Your task to perform on an android device: set the timer Image 0: 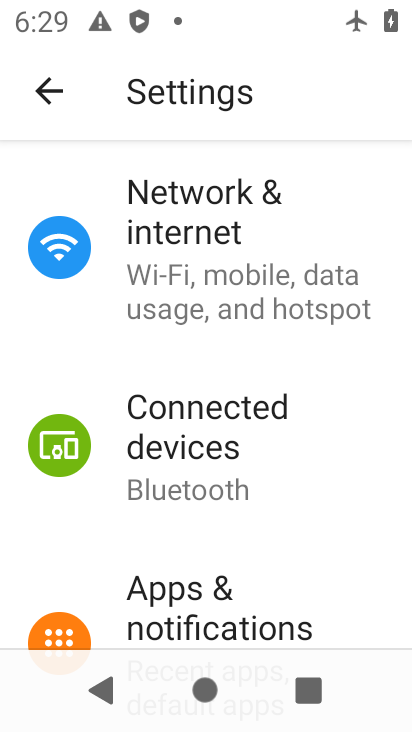
Step 0: drag from (202, 586) to (193, 313)
Your task to perform on an android device: set the timer Image 1: 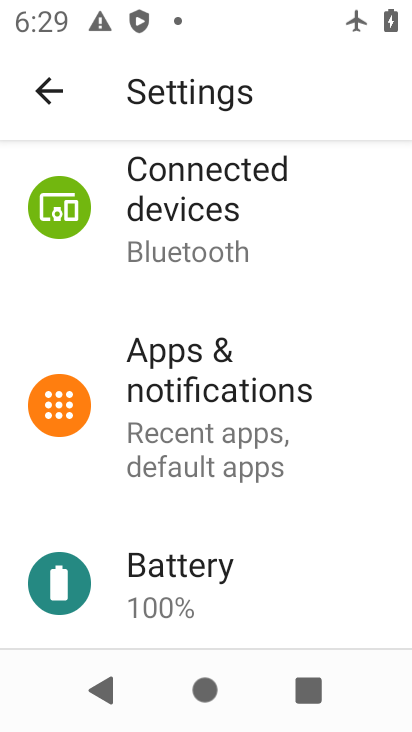
Step 1: press home button
Your task to perform on an android device: set the timer Image 2: 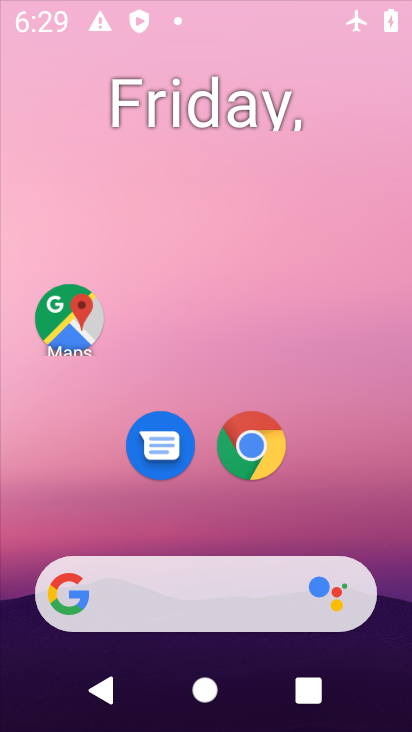
Step 2: drag from (200, 588) to (269, 143)
Your task to perform on an android device: set the timer Image 3: 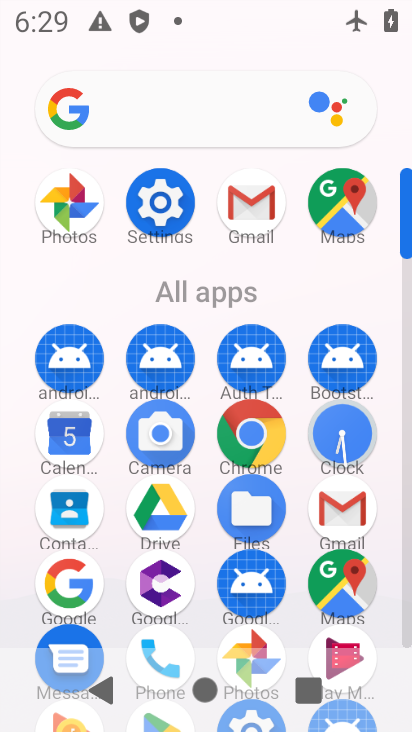
Step 3: drag from (209, 584) to (214, 233)
Your task to perform on an android device: set the timer Image 4: 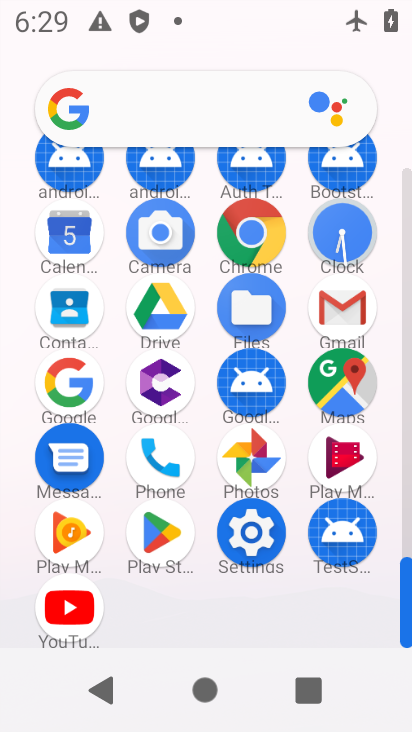
Step 4: drag from (209, 201) to (165, 663)
Your task to perform on an android device: set the timer Image 5: 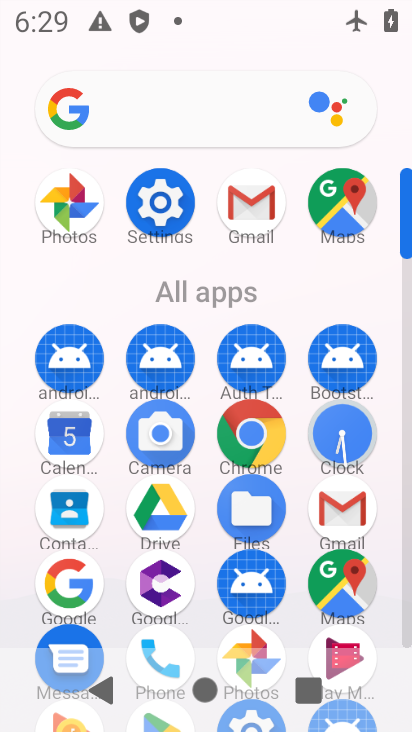
Step 5: click (360, 442)
Your task to perform on an android device: set the timer Image 6: 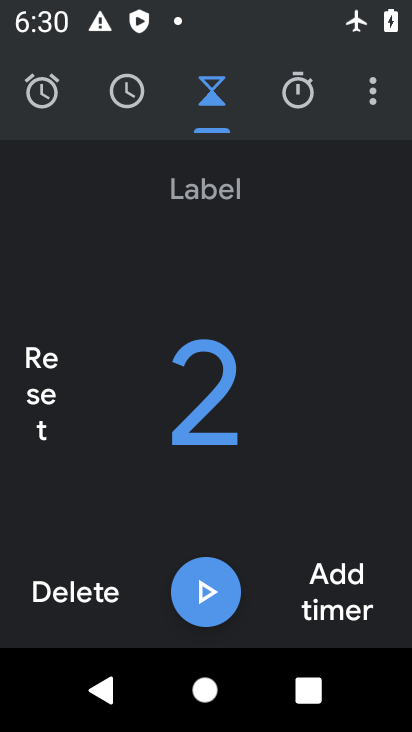
Step 6: drag from (384, 90) to (209, 87)
Your task to perform on an android device: set the timer Image 7: 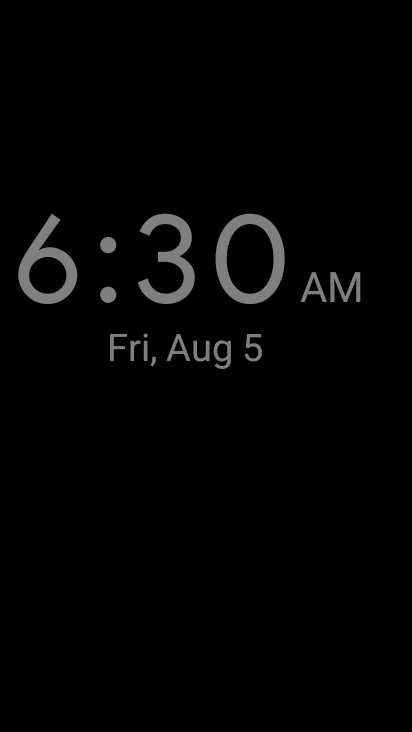
Step 7: click (244, 290)
Your task to perform on an android device: set the timer Image 8: 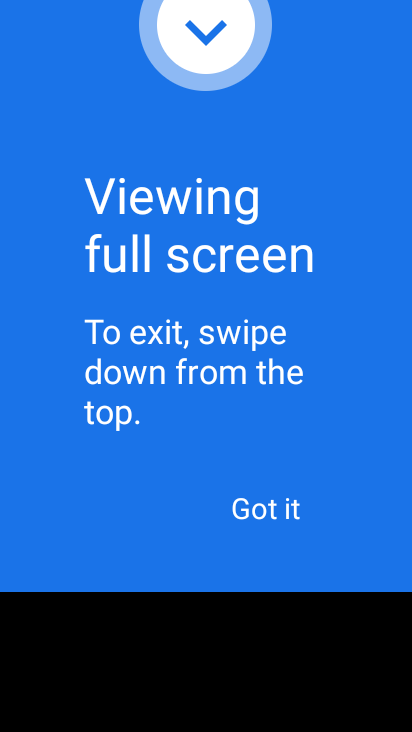
Step 8: drag from (186, 496) to (285, 313)
Your task to perform on an android device: set the timer Image 9: 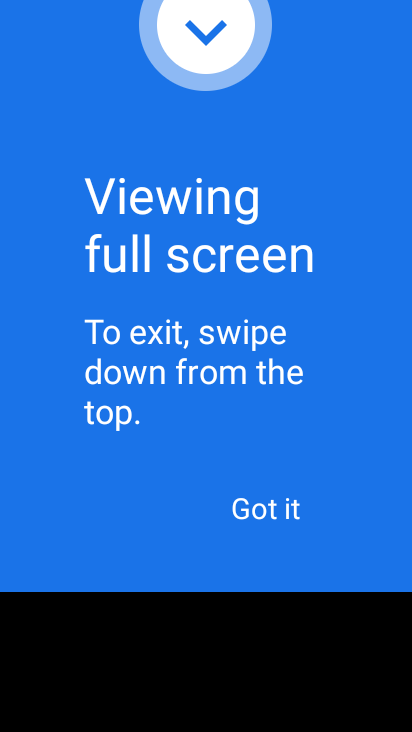
Step 9: click (243, 492)
Your task to perform on an android device: set the timer Image 10: 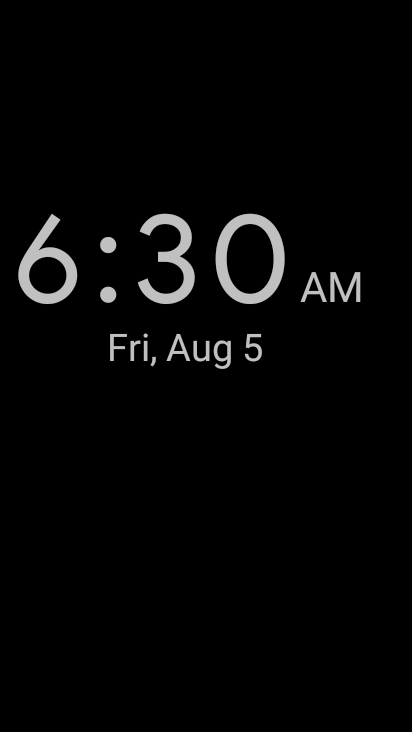
Step 10: drag from (219, 427) to (296, 139)
Your task to perform on an android device: set the timer Image 11: 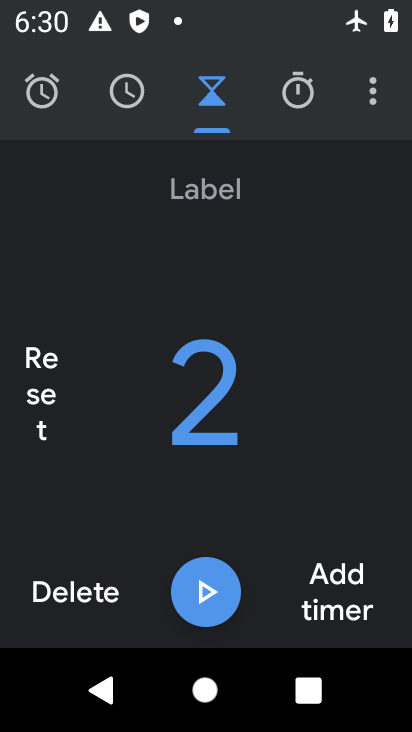
Step 11: click (195, 598)
Your task to perform on an android device: set the timer Image 12: 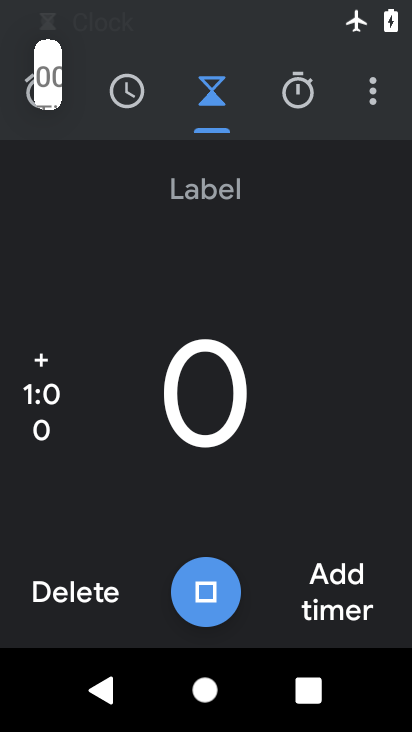
Step 12: click (33, 596)
Your task to perform on an android device: set the timer Image 13: 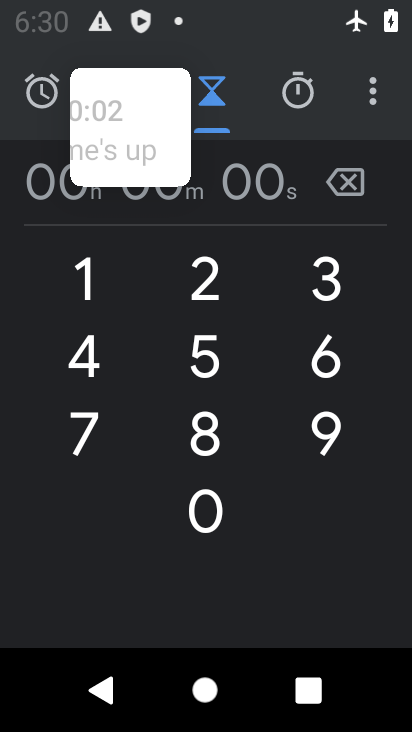
Step 13: click (123, 262)
Your task to perform on an android device: set the timer Image 14: 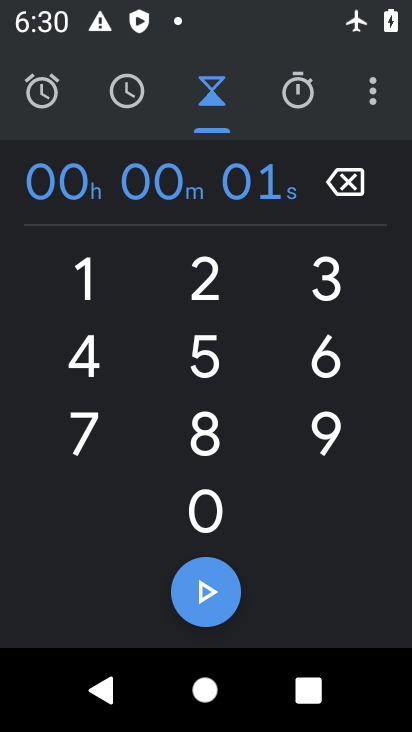
Step 14: click (192, 374)
Your task to perform on an android device: set the timer Image 15: 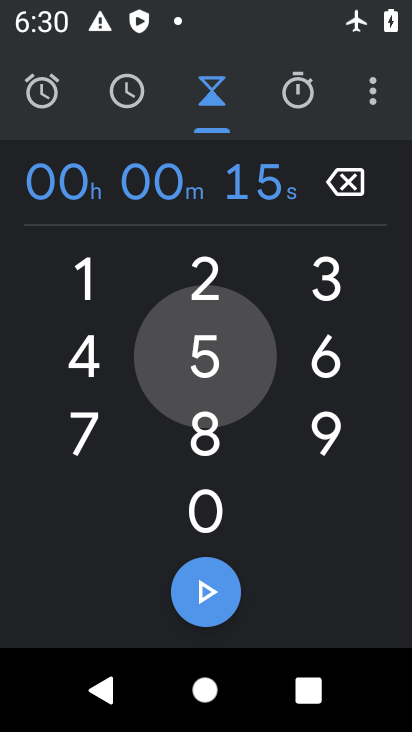
Step 15: click (202, 421)
Your task to perform on an android device: set the timer Image 16: 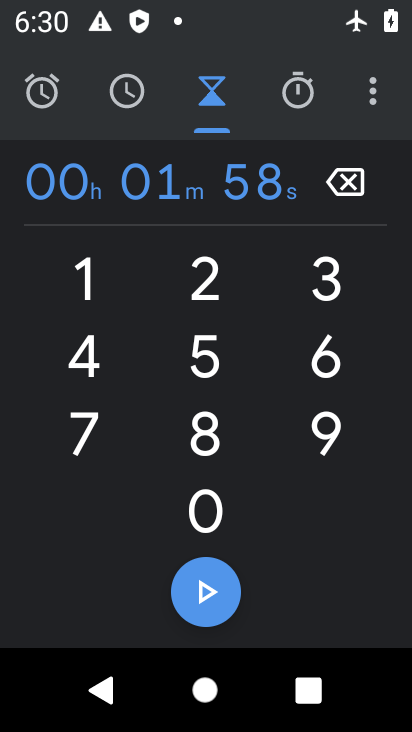
Step 16: click (194, 600)
Your task to perform on an android device: set the timer Image 17: 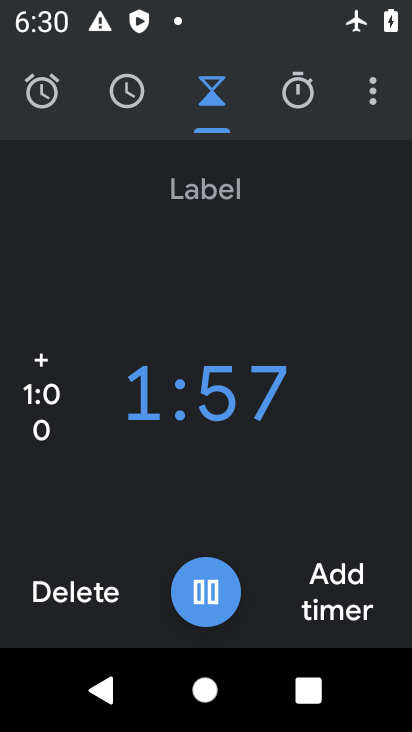
Step 17: task complete